Your task to perform on an android device: change notifications settings Image 0: 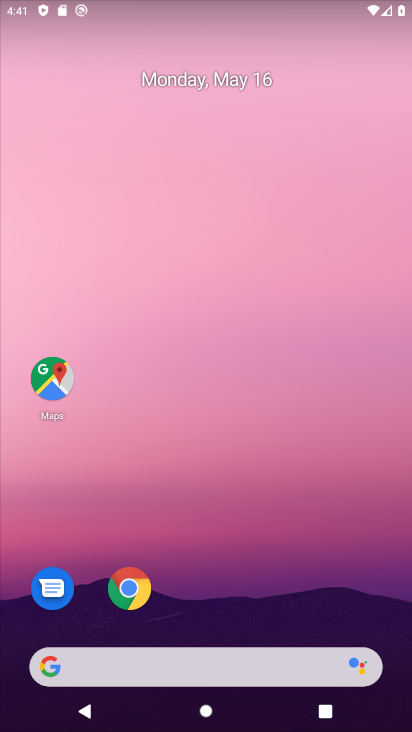
Step 0: drag from (247, 403) to (230, 73)
Your task to perform on an android device: change notifications settings Image 1: 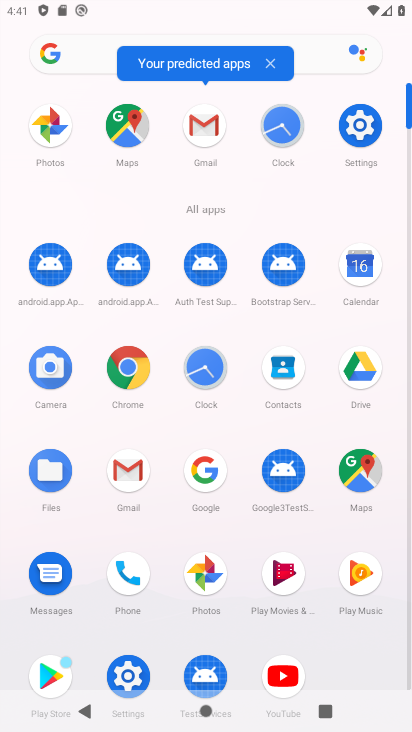
Step 1: click (359, 125)
Your task to perform on an android device: change notifications settings Image 2: 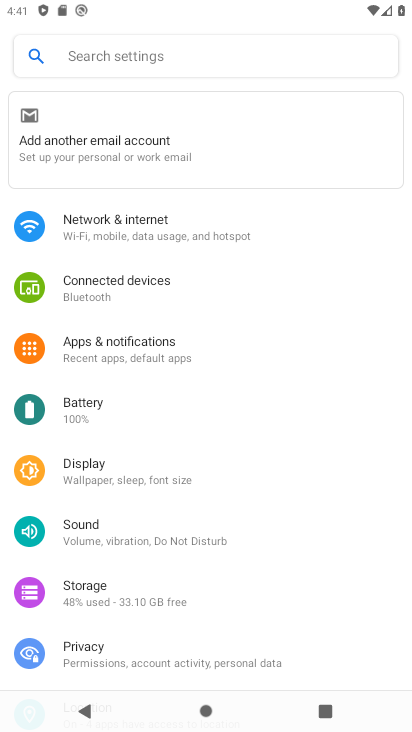
Step 2: click (163, 346)
Your task to perform on an android device: change notifications settings Image 3: 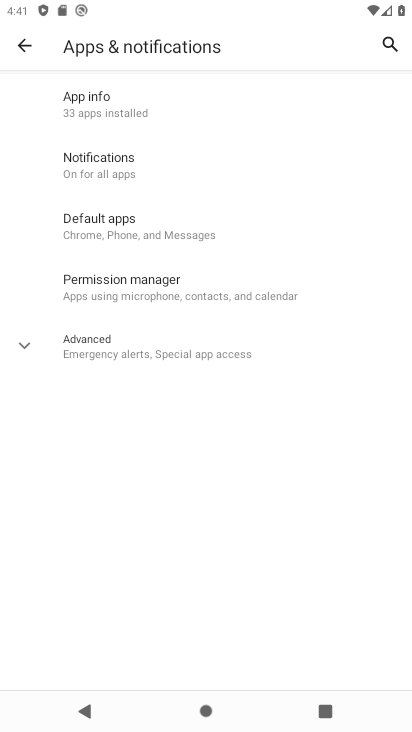
Step 3: click (114, 157)
Your task to perform on an android device: change notifications settings Image 4: 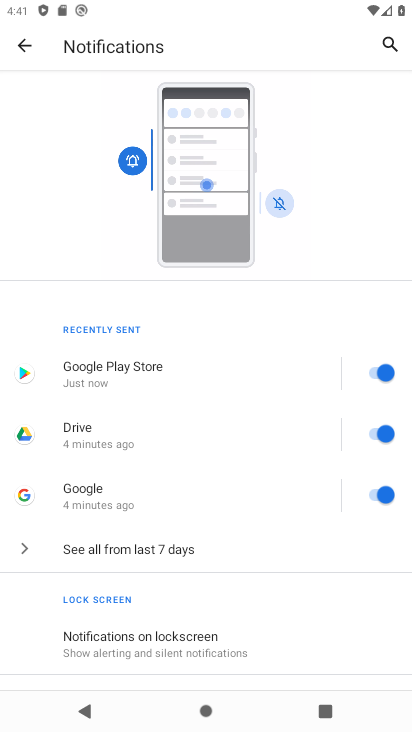
Step 4: click (376, 369)
Your task to perform on an android device: change notifications settings Image 5: 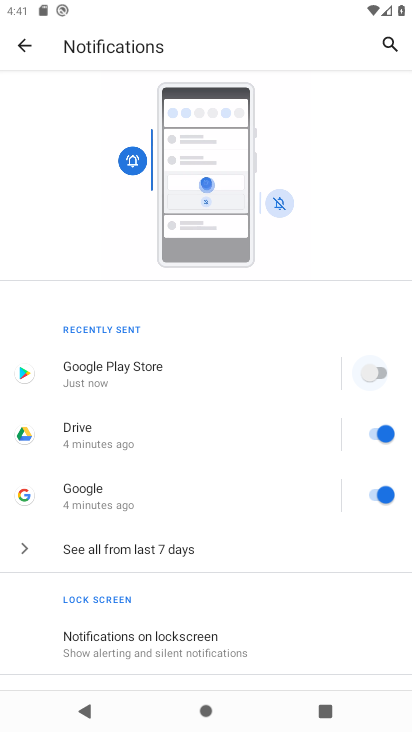
Step 5: click (376, 434)
Your task to perform on an android device: change notifications settings Image 6: 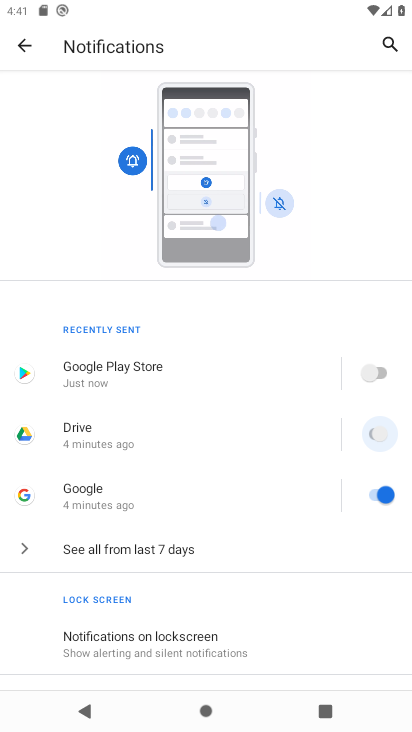
Step 6: click (381, 491)
Your task to perform on an android device: change notifications settings Image 7: 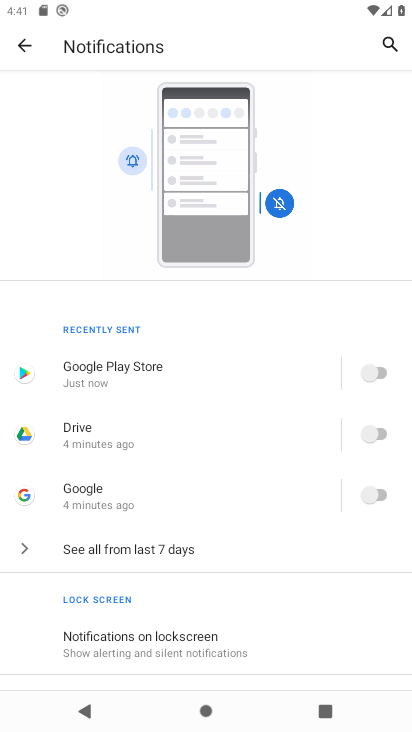
Step 7: task complete